Your task to perform on an android device: Open calendar and show me the second week of next month Image 0: 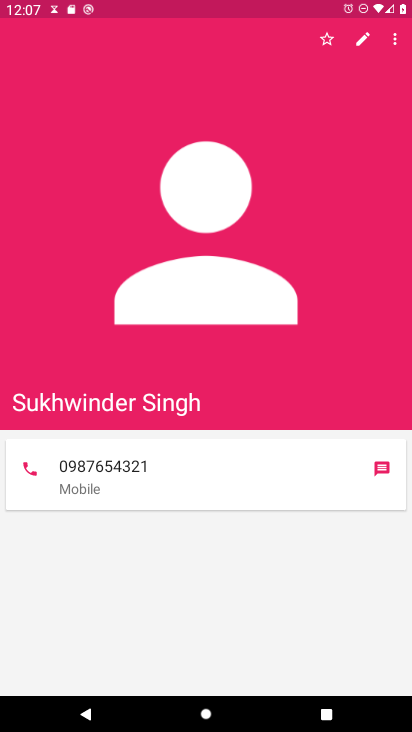
Step 0: press home button
Your task to perform on an android device: Open calendar and show me the second week of next month Image 1: 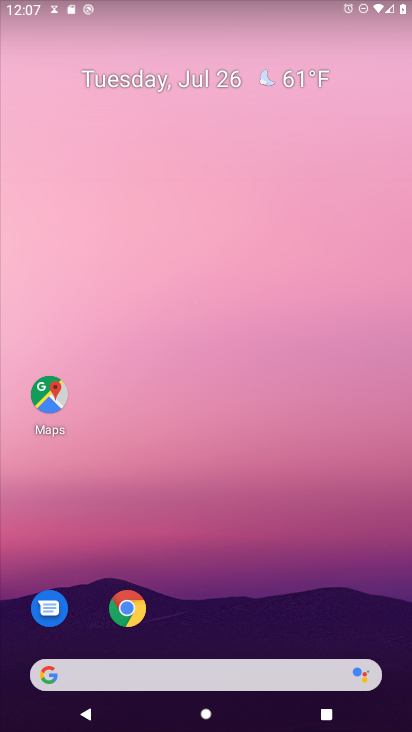
Step 1: drag from (165, 671) to (239, 142)
Your task to perform on an android device: Open calendar and show me the second week of next month Image 2: 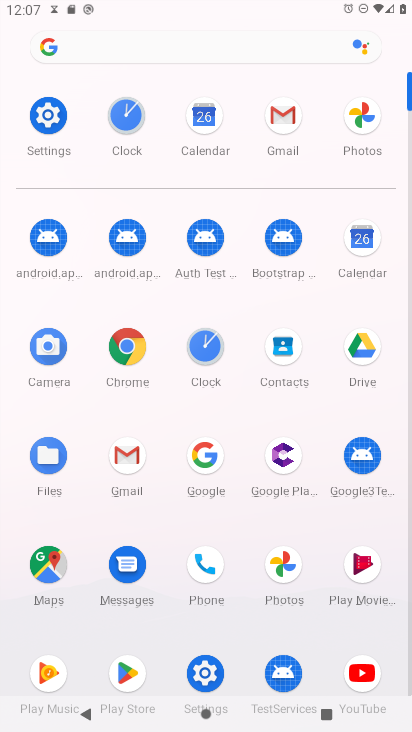
Step 2: click (365, 239)
Your task to perform on an android device: Open calendar and show me the second week of next month Image 3: 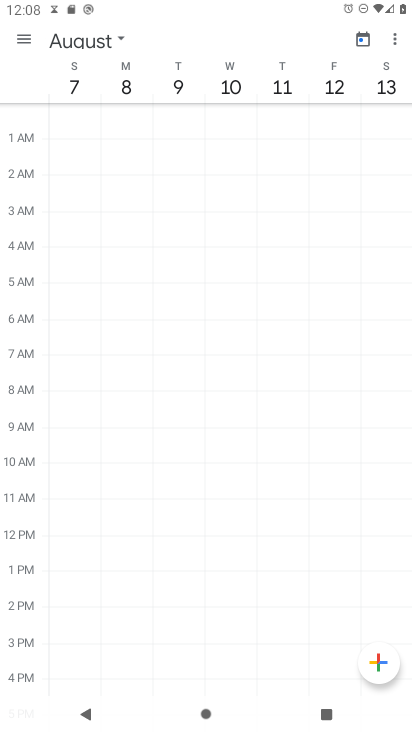
Step 3: click (365, 41)
Your task to perform on an android device: Open calendar and show me the second week of next month Image 4: 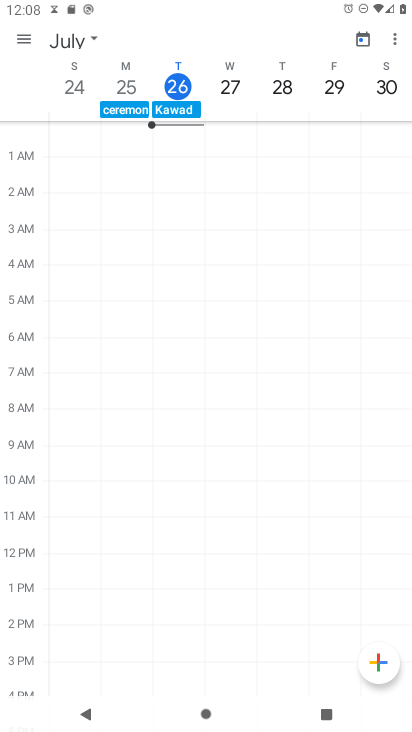
Step 4: click (95, 39)
Your task to perform on an android device: Open calendar and show me the second week of next month Image 5: 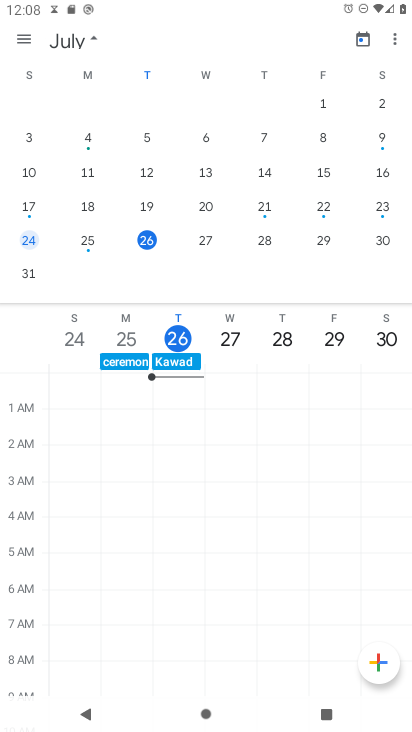
Step 5: drag from (356, 221) to (3, 244)
Your task to perform on an android device: Open calendar and show me the second week of next month Image 6: 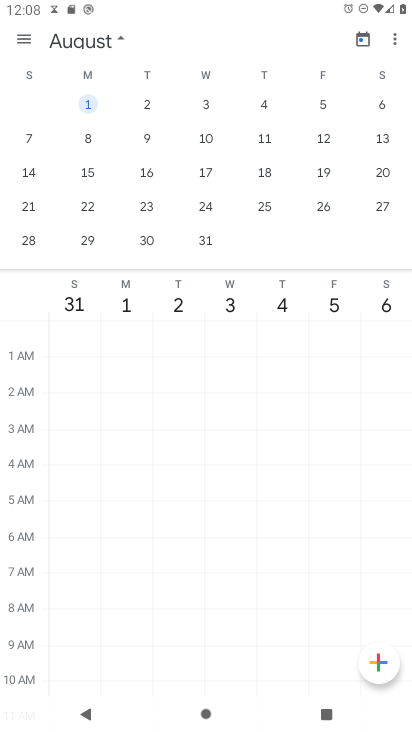
Step 6: click (91, 140)
Your task to perform on an android device: Open calendar and show me the second week of next month Image 7: 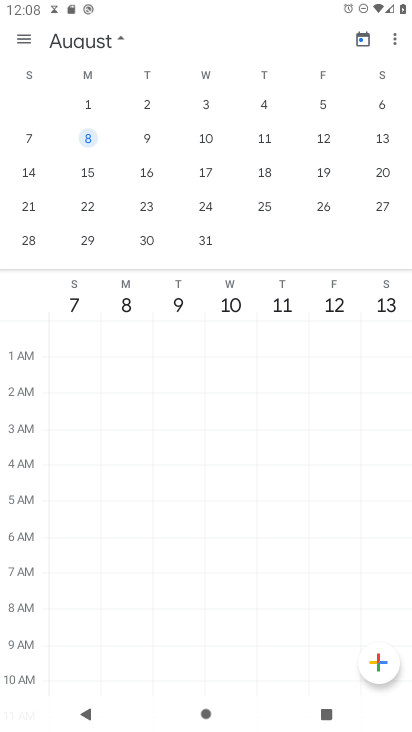
Step 7: click (29, 35)
Your task to perform on an android device: Open calendar and show me the second week of next month Image 8: 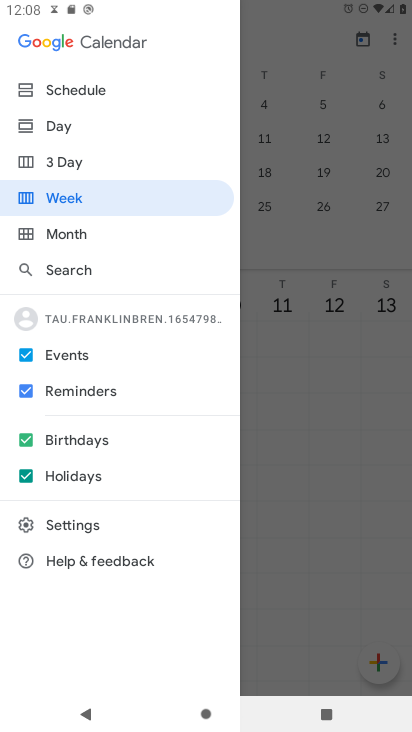
Step 8: click (74, 190)
Your task to perform on an android device: Open calendar and show me the second week of next month Image 9: 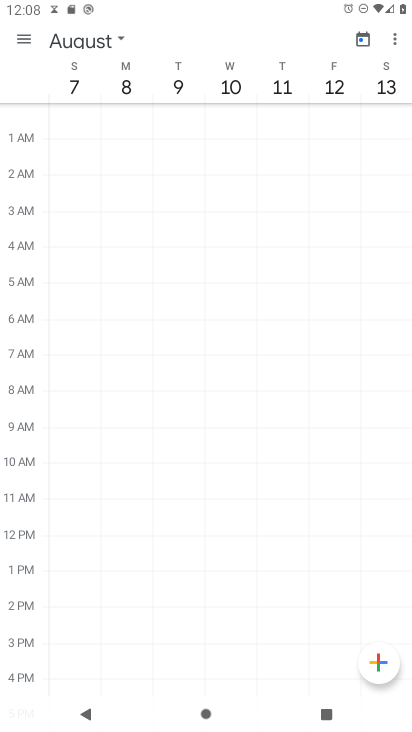
Step 9: task complete